Your task to perform on an android device: turn off picture-in-picture Image 0: 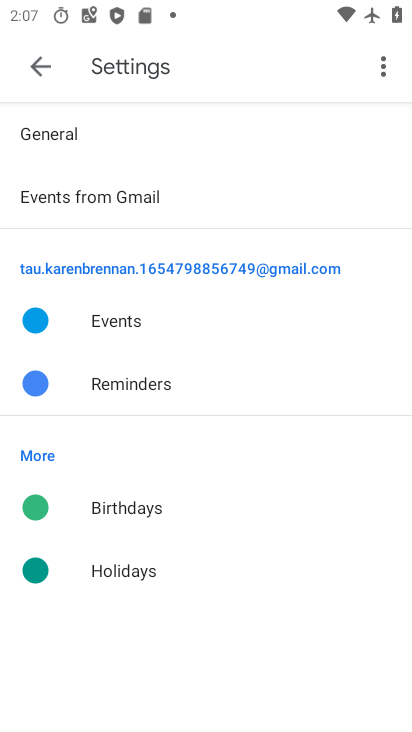
Step 0: press home button
Your task to perform on an android device: turn off picture-in-picture Image 1: 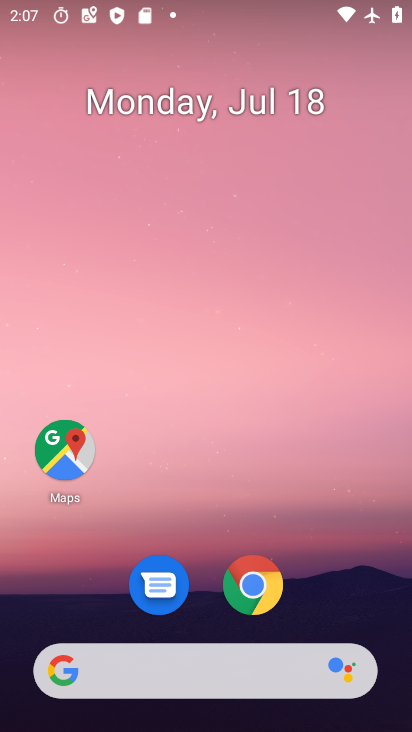
Step 1: drag from (247, 574) to (243, 536)
Your task to perform on an android device: turn off picture-in-picture Image 2: 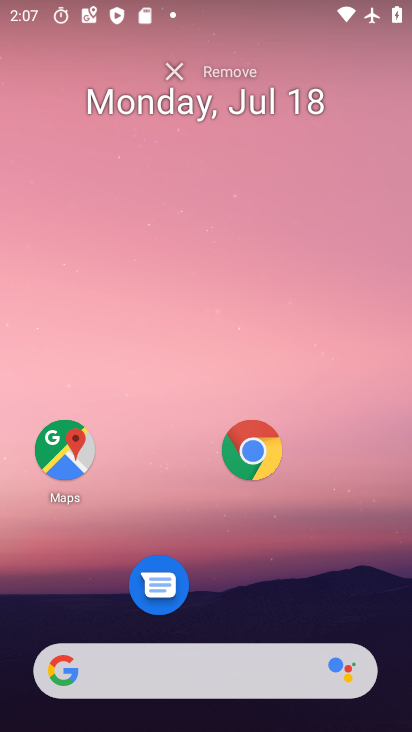
Step 2: click (193, 367)
Your task to perform on an android device: turn off picture-in-picture Image 3: 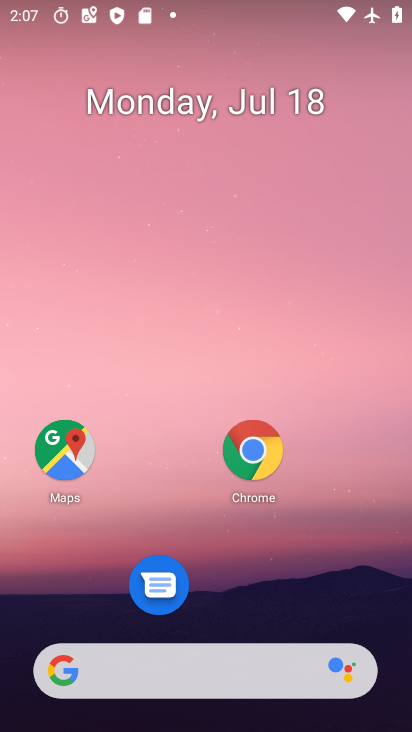
Step 3: drag from (249, 449) to (250, 412)
Your task to perform on an android device: turn off picture-in-picture Image 4: 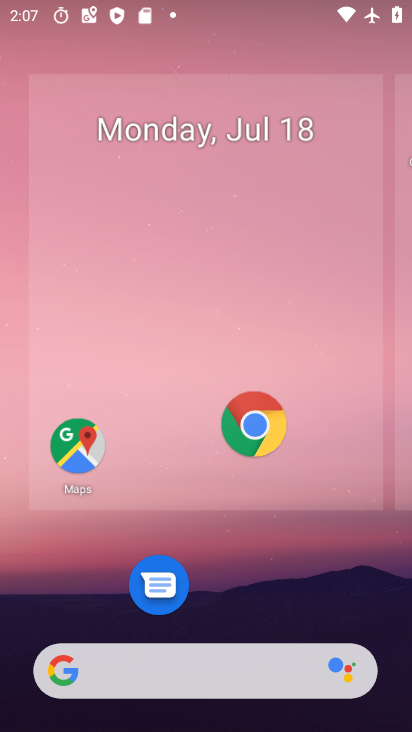
Step 4: click (199, 243)
Your task to perform on an android device: turn off picture-in-picture Image 5: 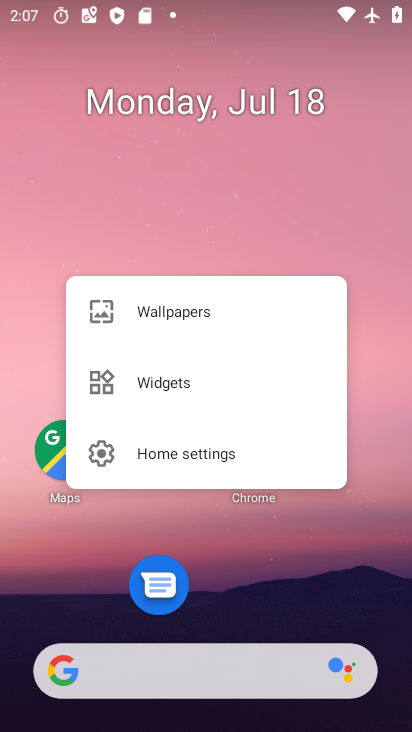
Step 5: click (362, 528)
Your task to perform on an android device: turn off picture-in-picture Image 6: 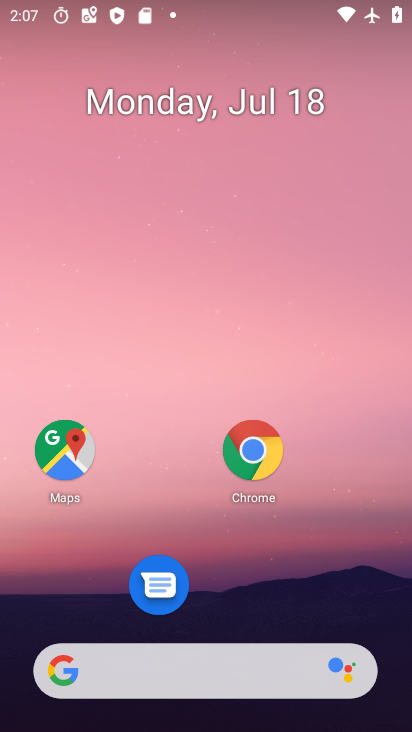
Step 6: click (253, 450)
Your task to perform on an android device: turn off picture-in-picture Image 7: 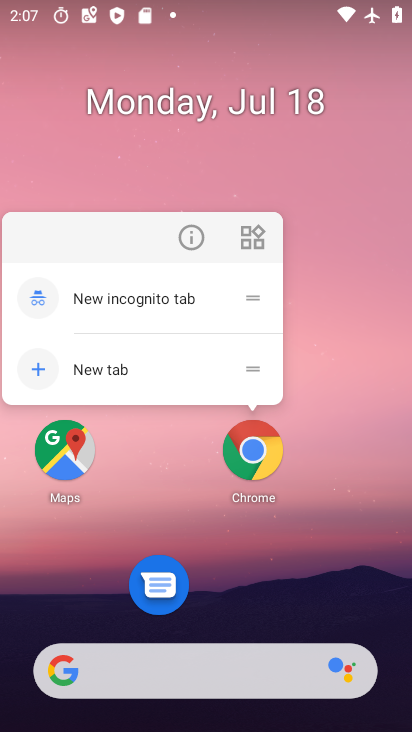
Step 7: click (186, 238)
Your task to perform on an android device: turn off picture-in-picture Image 8: 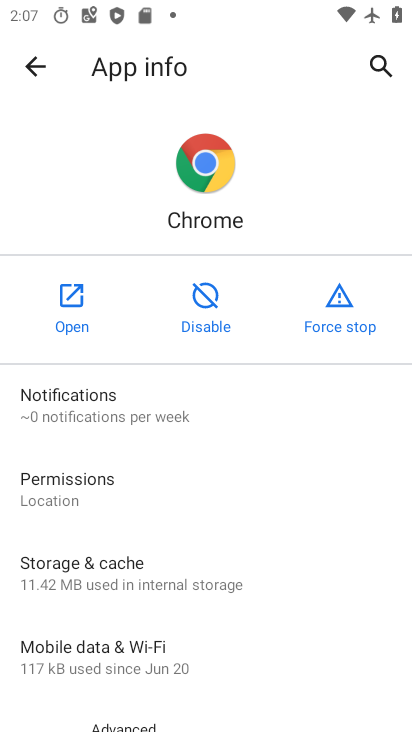
Step 8: drag from (219, 642) to (324, 27)
Your task to perform on an android device: turn off picture-in-picture Image 9: 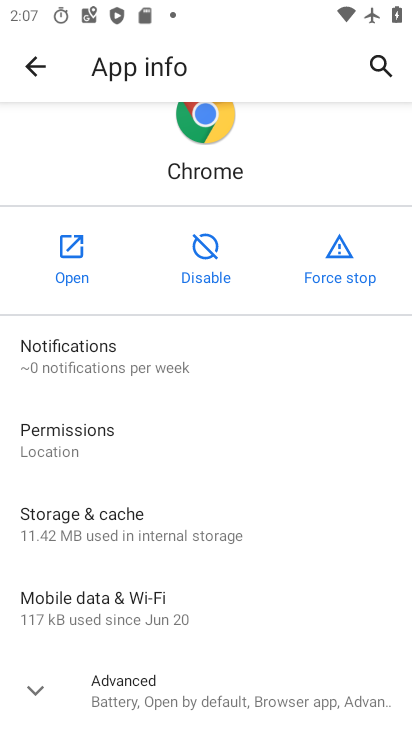
Step 9: click (118, 686)
Your task to perform on an android device: turn off picture-in-picture Image 10: 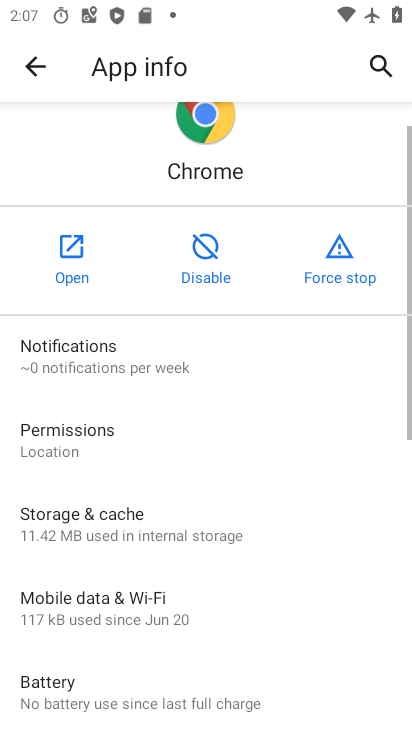
Step 10: drag from (209, 642) to (306, 92)
Your task to perform on an android device: turn off picture-in-picture Image 11: 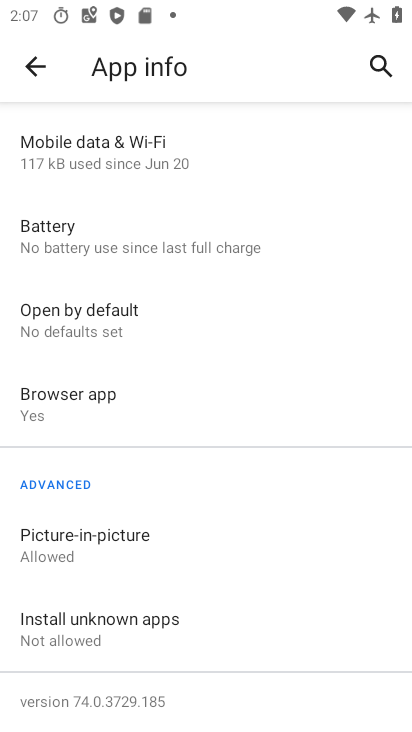
Step 11: click (113, 545)
Your task to perform on an android device: turn off picture-in-picture Image 12: 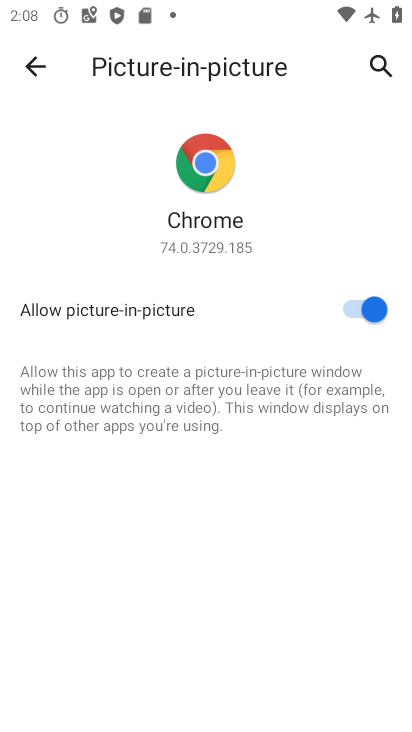
Step 12: click (357, 303)
Your task to perform on an android device: turn off picture-in-picture Image 13: 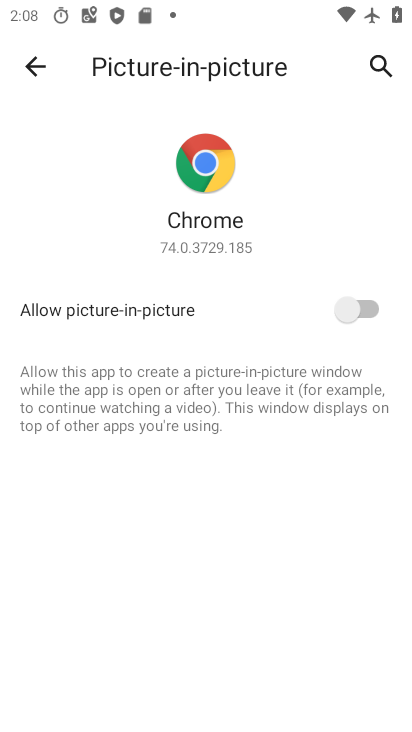
Step 13: task complete